Your task to perform on an android device: clear history in the chrome app Image 0: 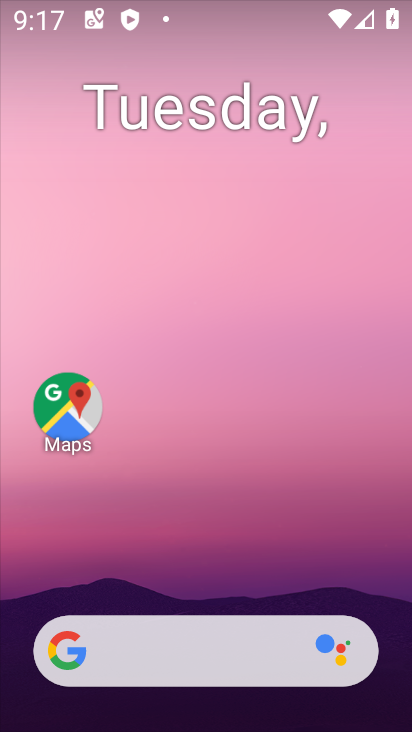
Step 0: drag from (213, 606) to (140, 5)
Your task to perform on an android device: clear history in the chrome app Image 1: 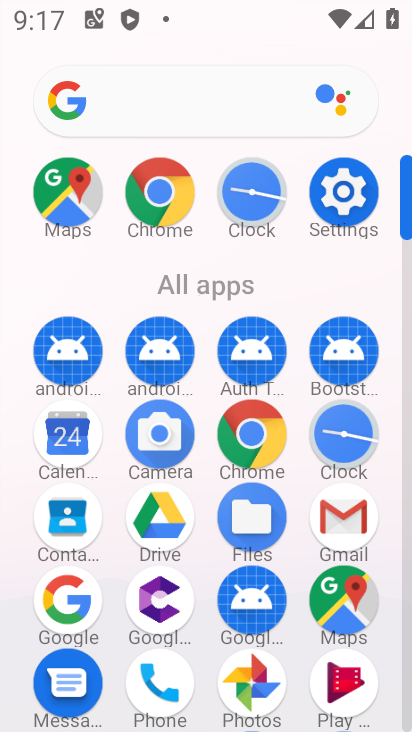
Step 1: click (167, 185)
Your task to perform on an android device: clear history in the chrome app Image 2: 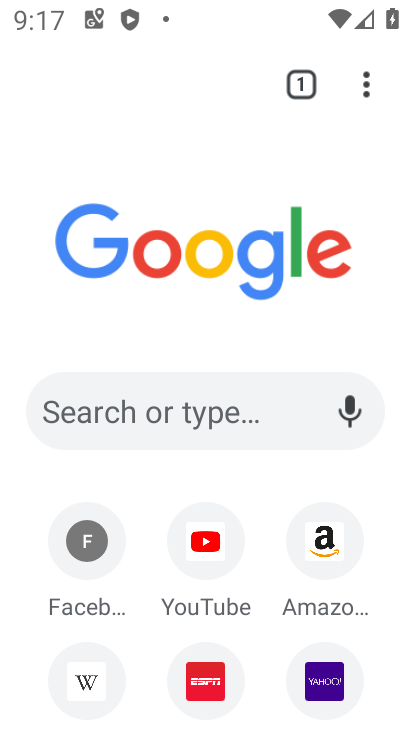
Step 2: click (370, 91)
Your task to perform on an android device: clear history in the chrome app Image 3: 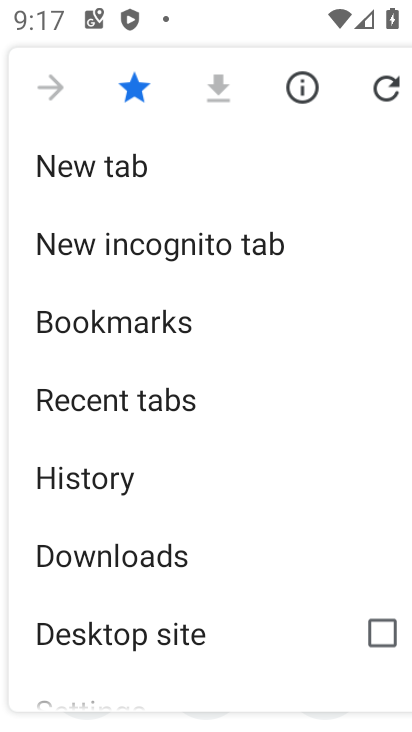
Step 3: click (85, 486)
Your task to perform on an android device: clear history in the chrome app Image 4: 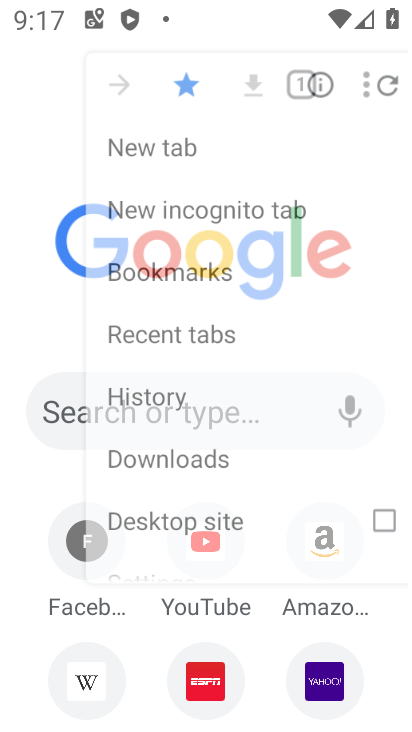
Step 4: click (85, 486)
Your task to perform on an android device: clear history in the chrome app Image 5: 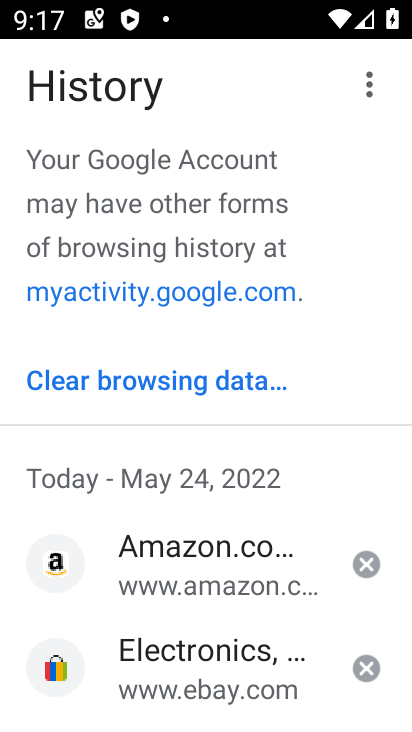
Step 5: click (111, 392)
Your task to perform on an android device: clear history in the chrome app Image 6: 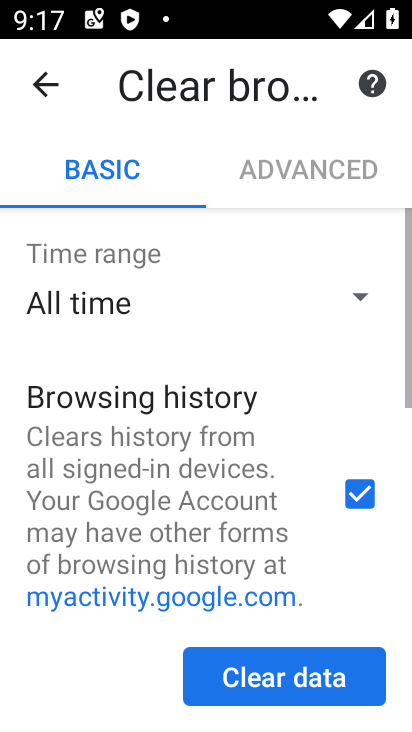
Step 6: click (296, 667)
Your task to perform on an android device: clear history in the chrome app Image 7: 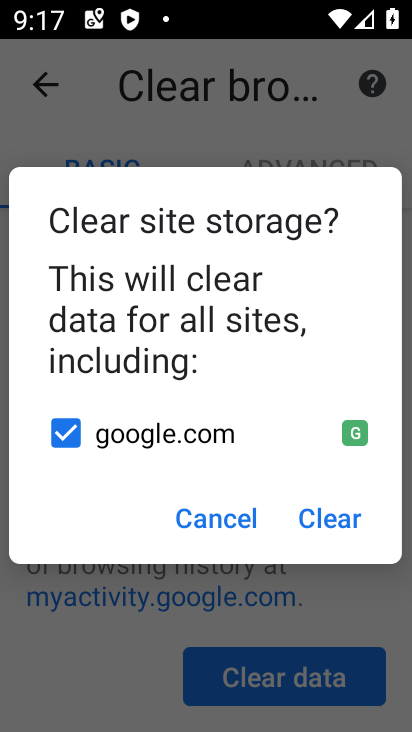
Step 7: click (341, 538)
Your task to perform on an android device: clear history in the chrome app Image 8: 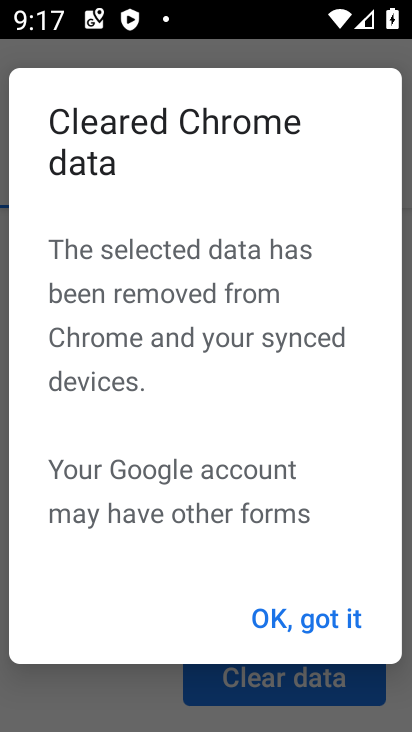
Step 8: click (308, 630)
Your task to perform on an android device: clear history in the chrome app Image 9: 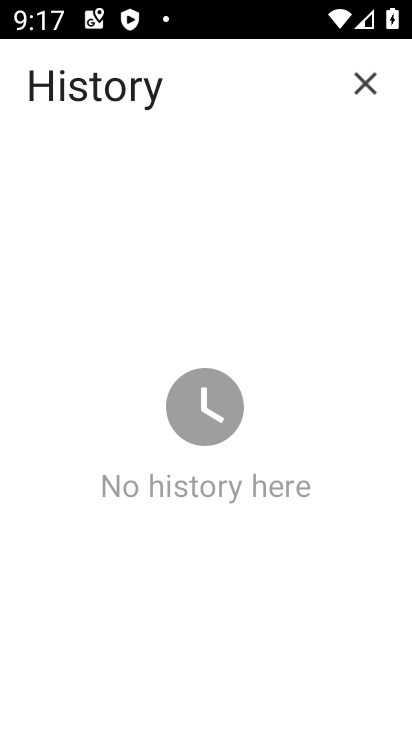
Step 9: task complete